Your task to perform on an android device: Open Android settings Image 0: 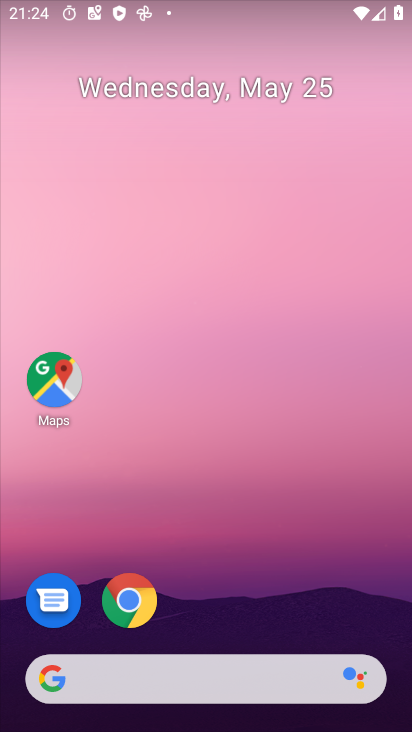
Step 0: drag from (372, 602) to (319, 110)
Your task to perform on an android device: Open Android settings Image 1: 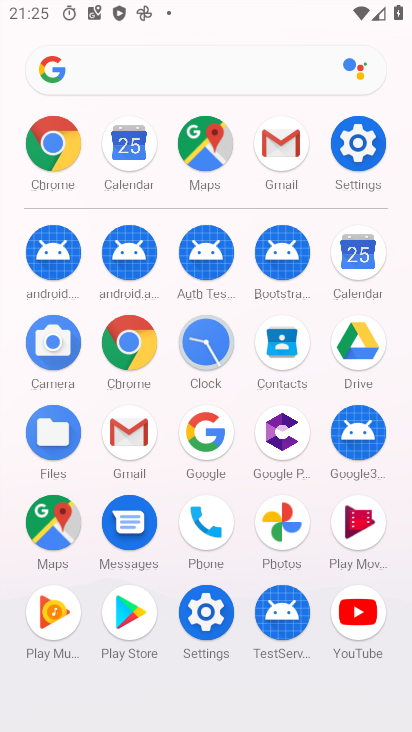
Step 1: click (199, 606)
Your task to perform on an android device: Open Android settings Image 2: 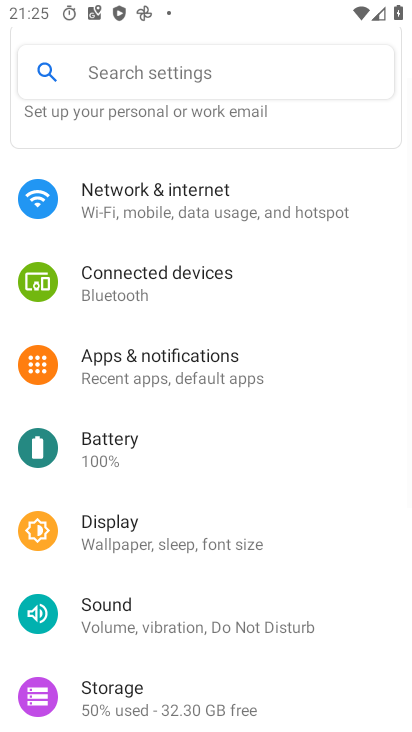
Step 2: drag from (300, 675) to (321, 277)
Your task to perform on an android device: Open Android settings Image 3: 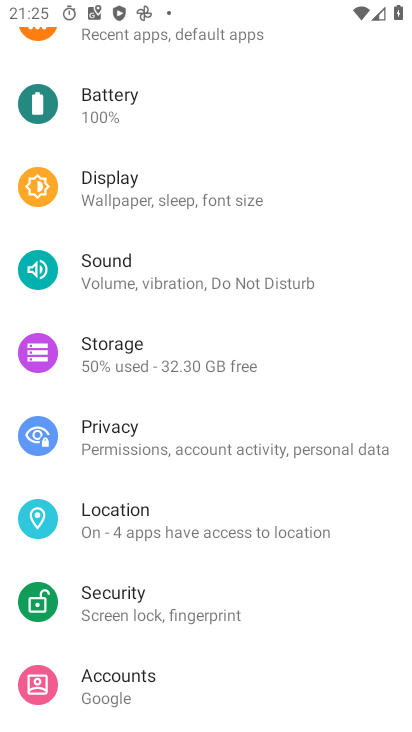
Step 3: drag from (280, 634) to (295, 171)
Your task to perform on an android device: Open Android settings Image 4: 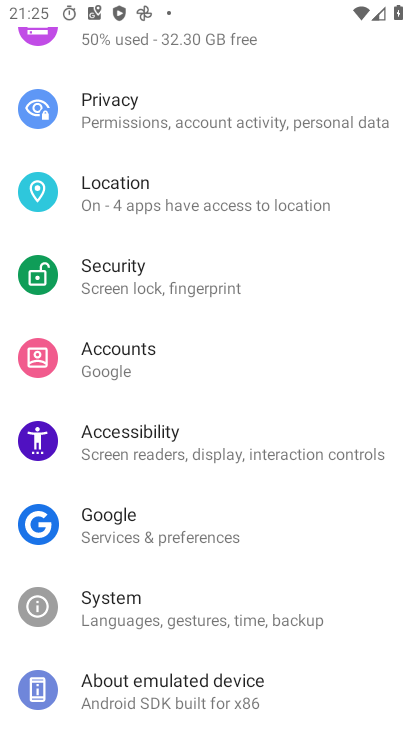
Step 4: drag from (305, 657) to (306, 303)
Your task to perform on an android device: Open Android settings Image 5: 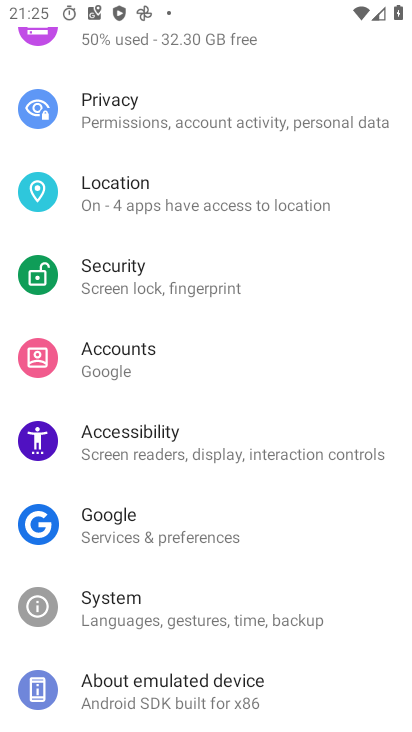
Step 5: click (205, 697)
Your task to perform on an android device: Open Android settings Image 6: 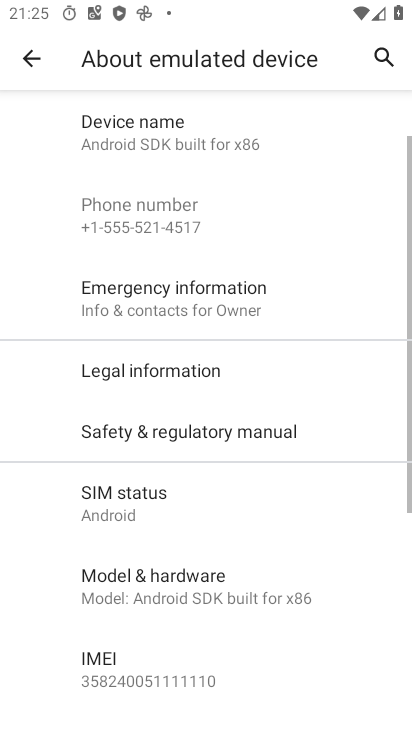
Step 6: task complete